Your task to perform on an android device: turn pop-ups off in chrome Image 0: 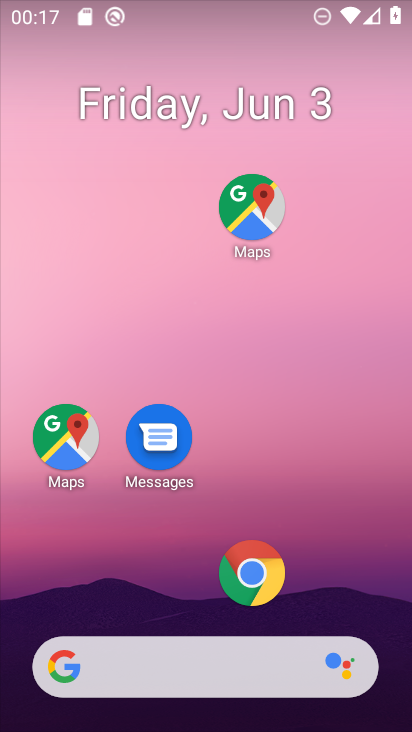
Step 0: click (246, 572)
Your task to perform on an android device: turn pop-ups off in chrome Image 1: 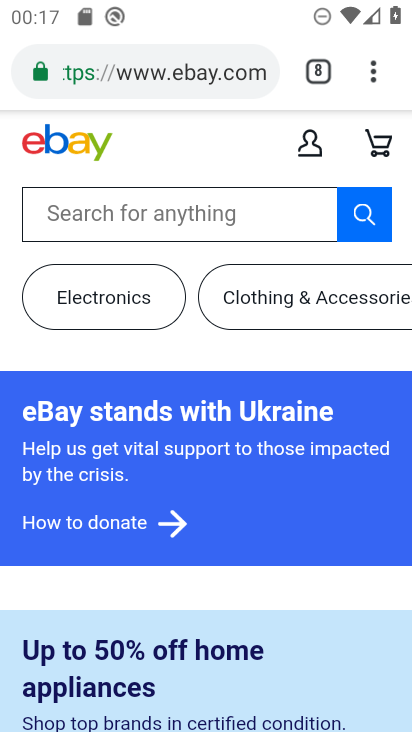
Step 1: click (374, 82)
Your task to perform on an android device: turn pop-ups off in chrome Image 2: 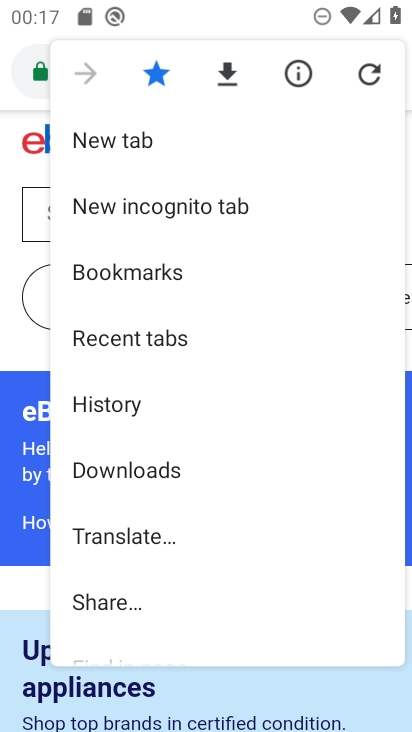
Step 2: drag from (197, 522) to (201, 265)
Your task to perform on an android device: turn pop-ups off in chrome Image 3: 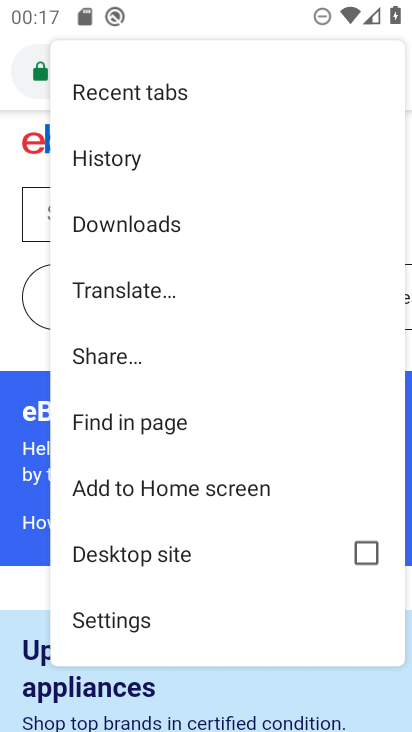
Step 3: click (107, 610)
Your task to perform on an android device: turn pop-ups off in chrome Image 4: 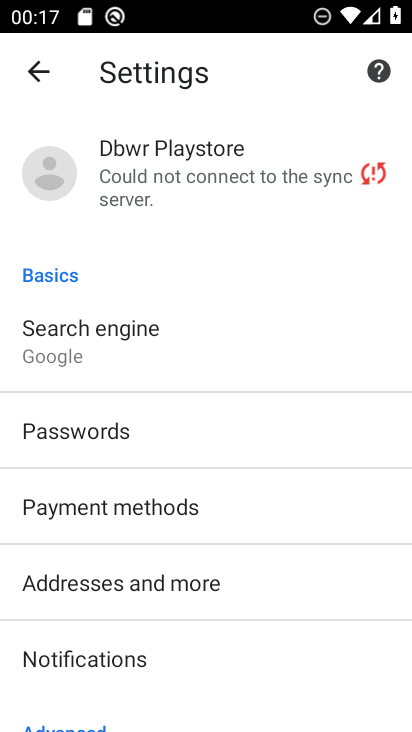
Step 4: drag from (213, 636) to (222, 388)
Your task to perform on an android device: turn pop-ups off in chrome Image 5: 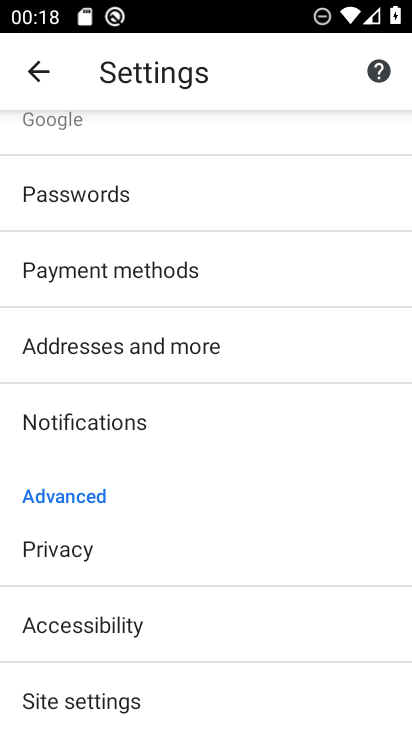
Step 5: click (151, 689)
Your task to perform on an android device: turn pop-ups off in chrome Image 6: 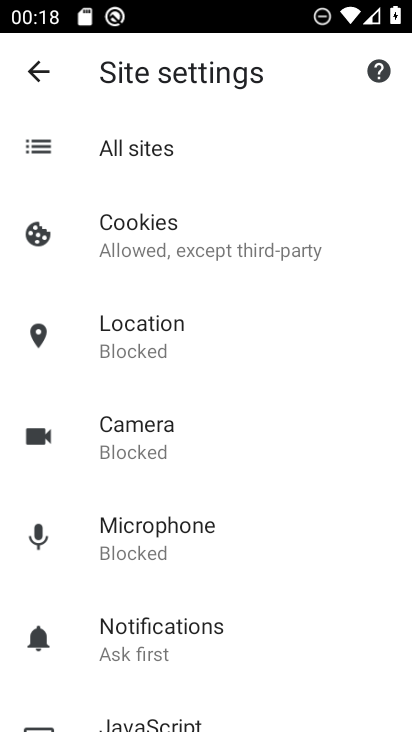
Step 6: drag from (151, 689) to (203, 443)
Your task to perform on an android device: turn pop-ups off in chrome Image 7: 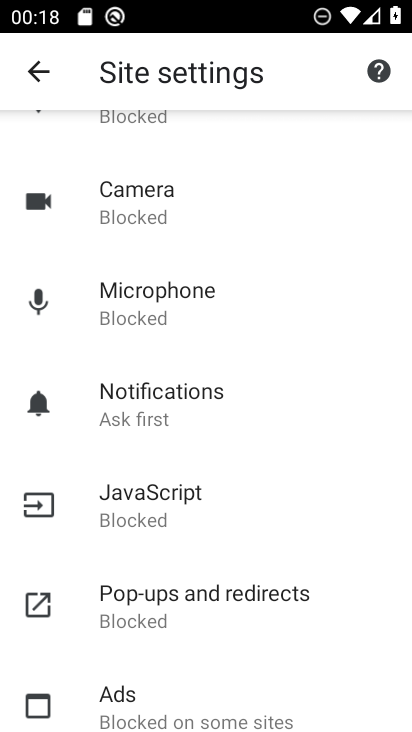
Step 7: click (197, 589)
Your task to perform on an android device: turn pop-ups off in chrome Image 8: 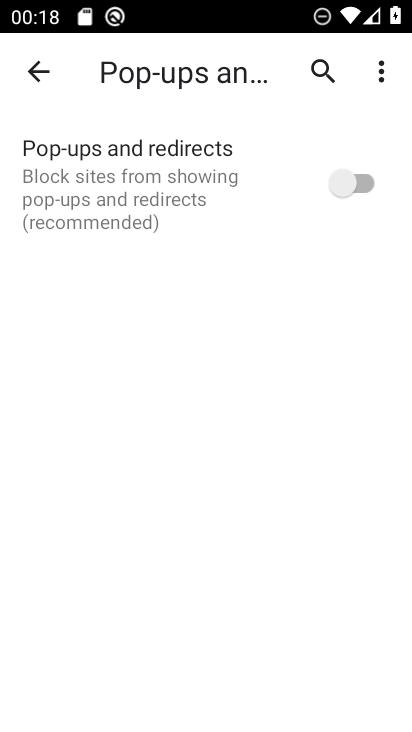
Step 8: task complete